Your task to perform on an android device: Open Android settings Image 0: 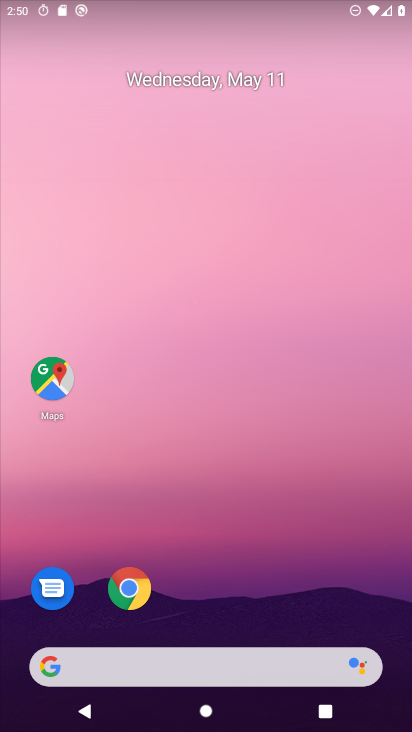
Step 0: drag from (248, 587) to (322, 80)
Your task to perform on an android device: Open Android settings Image 1: 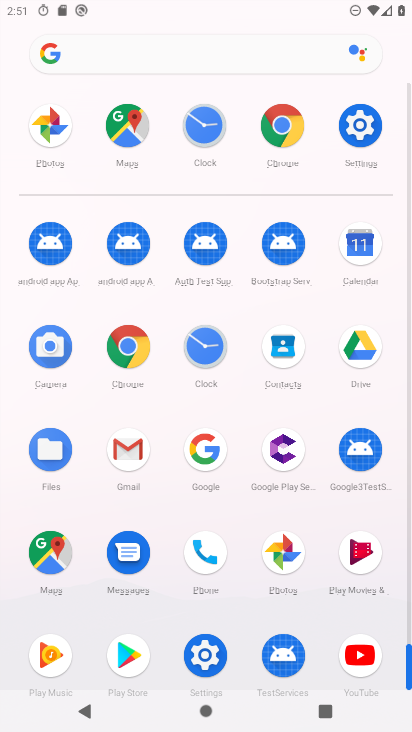
Step 1: click (201, 652)
Your task to perform on an android device: Open Android settings Image 2: 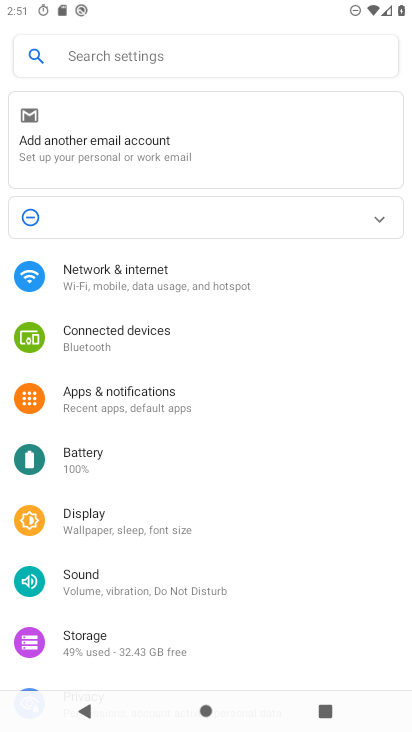
Step 2: drag from (312, 630) to (370, 175)
Your task to perform on an android device: Open Android settings Image 3: 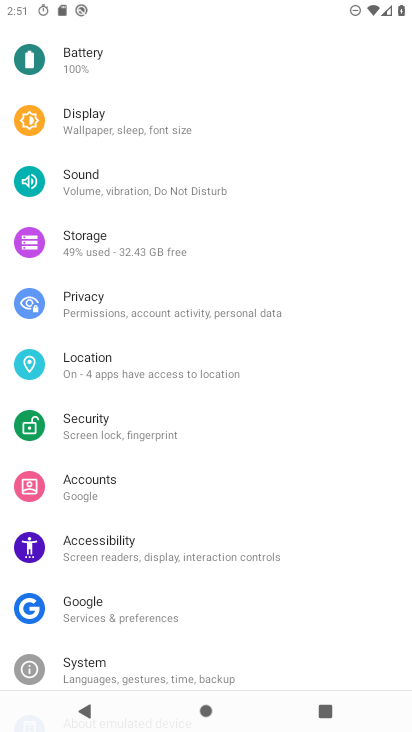
Step 3: drag from (337, 542) to (337, 180)
Your task to perform on an android device: Open Android settings Image 4: 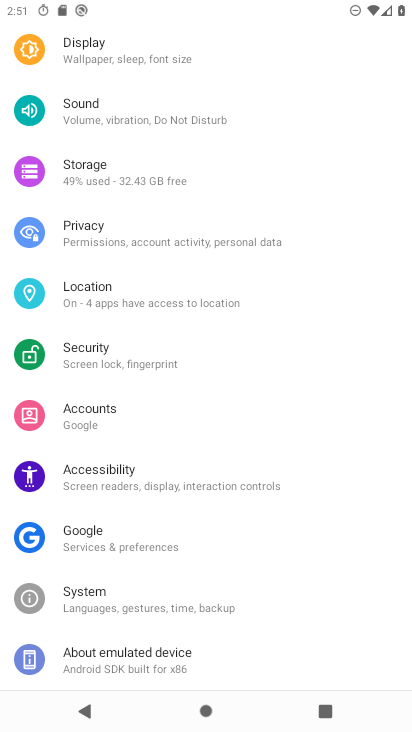
Step 4: drag from (284, 514) to (320, 290)
Your task to perform on an android device: Open Android settings Image 5: 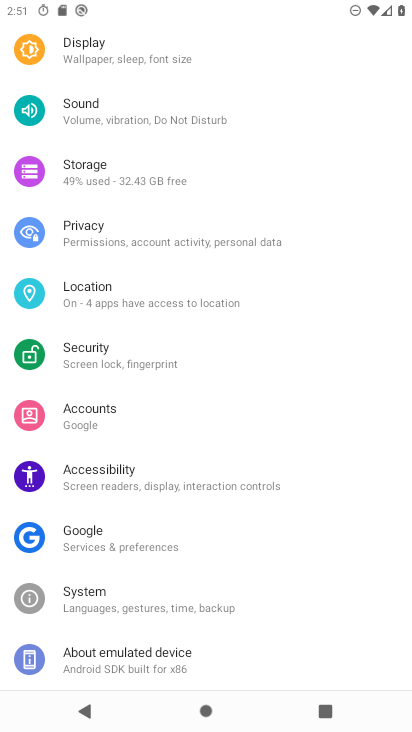
Step 5: drag from (214, 679) to (284, 384)
Your task to perform on an android device: Open Android settings Image 6: 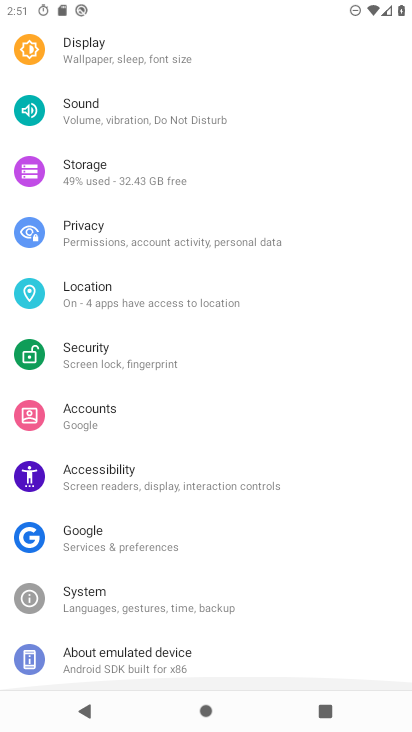
Step 6: click (112, 658)
Your task to perform on an android device: Open Android settings Image 7: 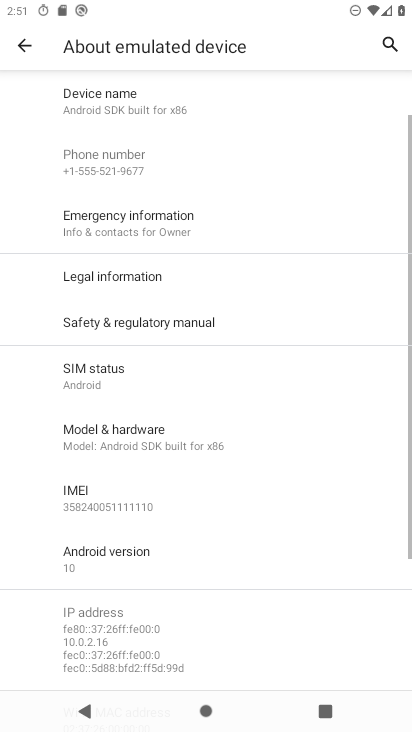
Step 7: drag from (252, 593) to (314, 291)
Your task to perform on an android device: Open Android settings Image 8: 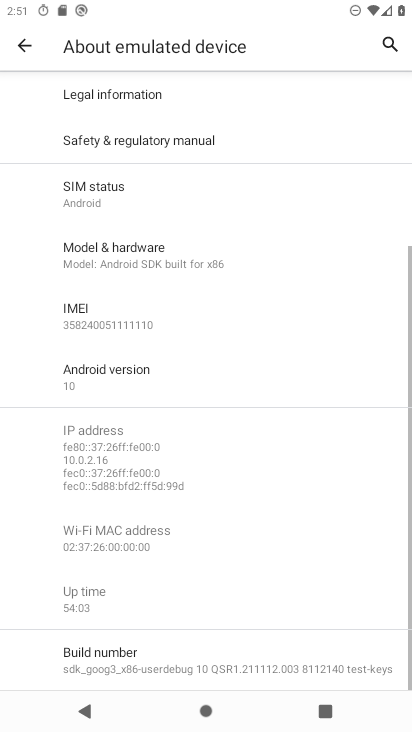
Step 8: drag from (77, 488) to (32, 534)
Your task to perform on an android device: Open Android settings Image 9: 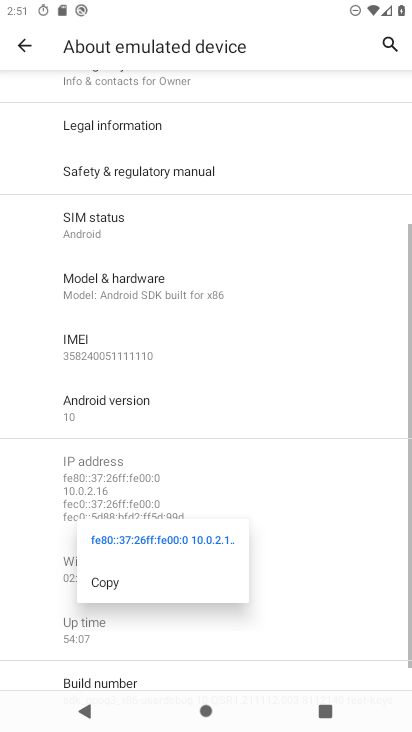
Step 9: click (99, 404)
Your task to perform on an android device: Open Android settings Image 10: 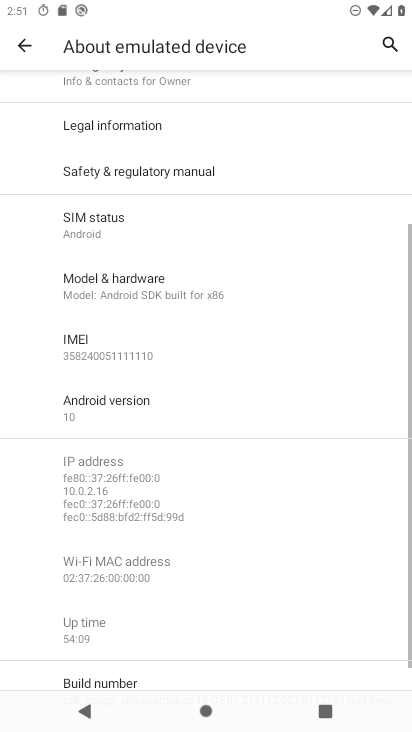
Step 10: click (99, 404)
Your task to perform on an android device: Open Android settings Image 11: 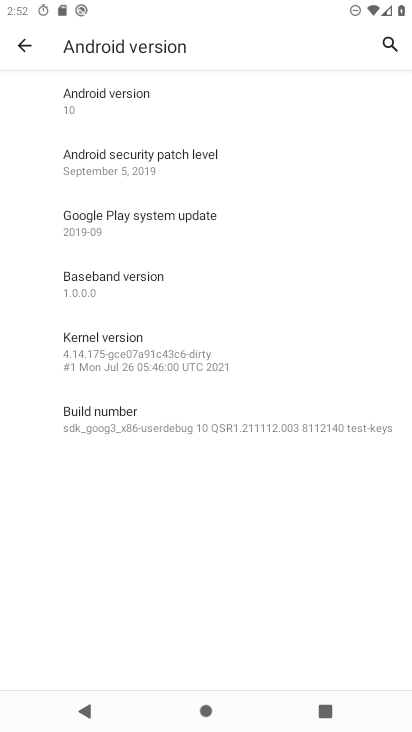
Step 11: task complete